Your task to perform on an android device: change notifications settings Image 0: 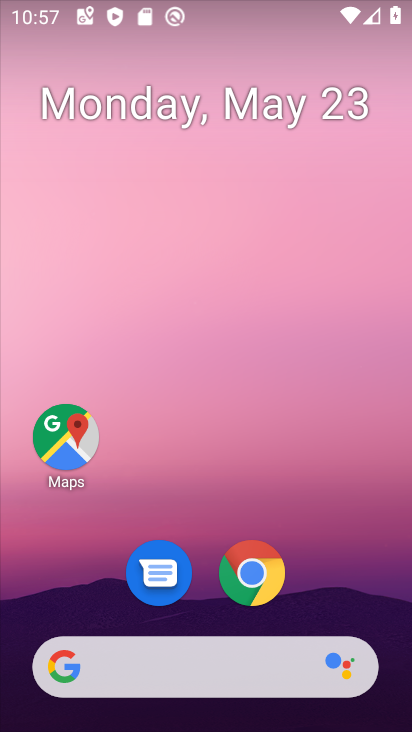
Step 0: drag from (306, 623) to (307, 337)
Your task to perform on an android device: change notifications settings Image 1: 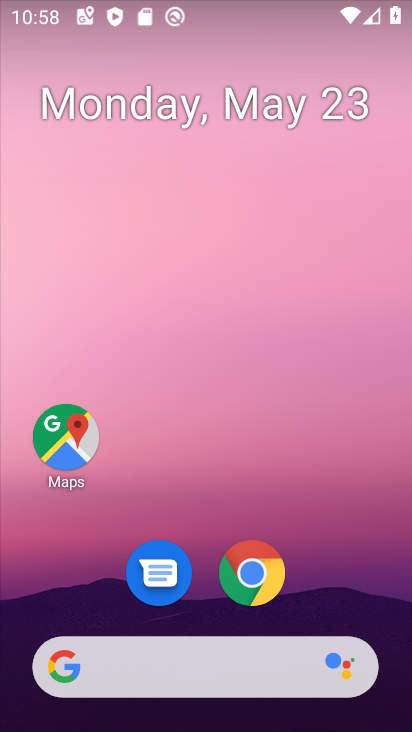
Step 1: drag from (284, 724) to (289, 634)
Your task to perform on an android device: change notifications settings Image 2: 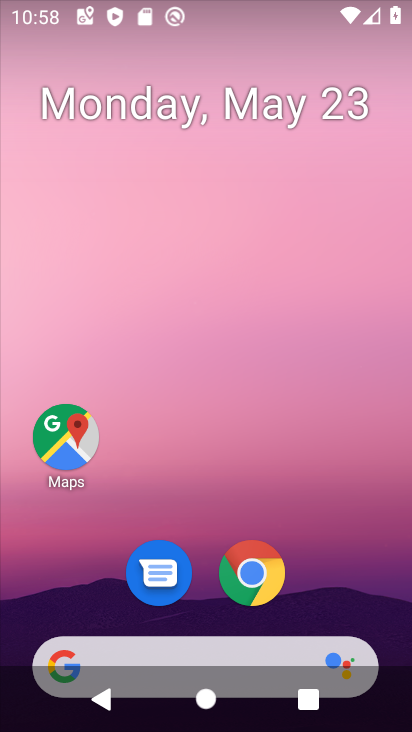
Step 2: drag from (289, 634) to (221, 8)
Your task to perform on an android device: change notifications settings Image 3: 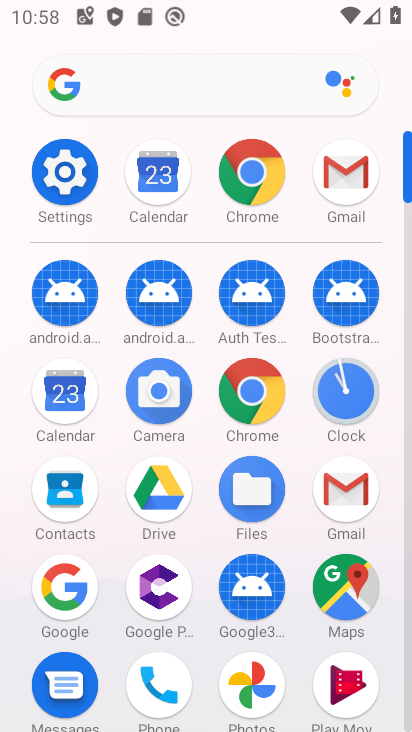
Step 3: click (58, 188)
Your task to perform on an android device: change notifications settings Image 4: 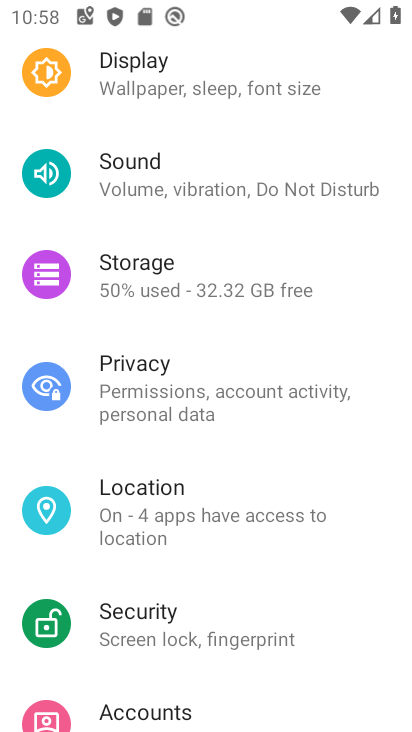
Step 4: drag from (210, 194) to (214, 352)
Your task to perform on an android device: change notifications settings Image 5: 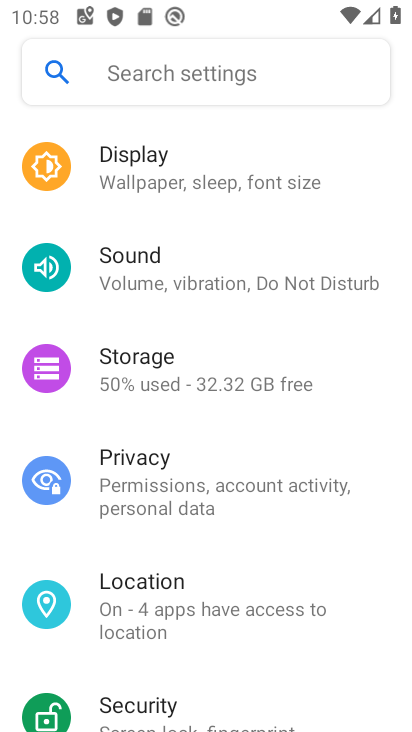
Step 5: drag from (199, 153) to (218, 319)
Your task to perform on an android device: change notifications settings Image 6: 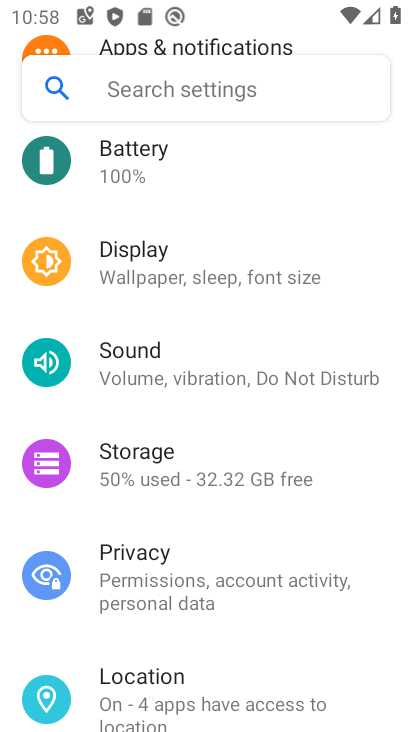
Step 6: drag from (203, 161) to (222, 383)
Your task to perform on an android device: change notifications settings Image 7: 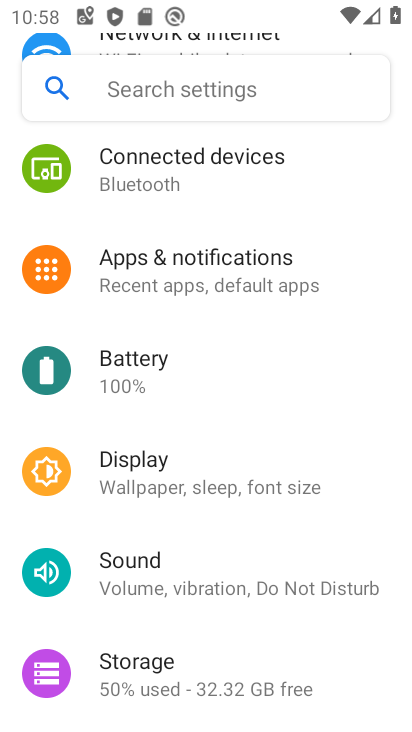
Step 7: click (226, 275)
Your task to perform on an android device: change notifications settings Image 8: 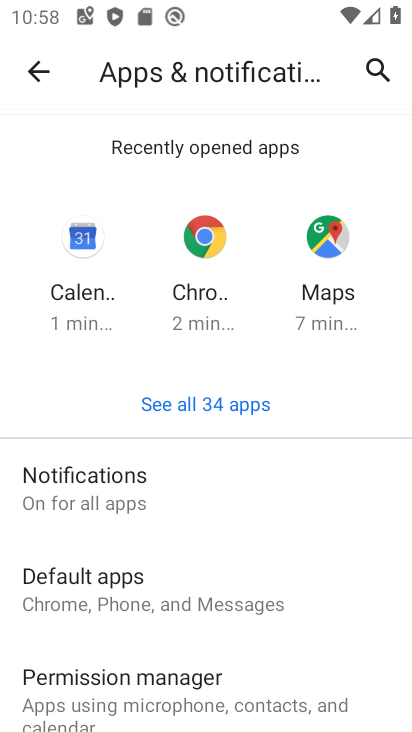
Step 8: click (207, 487)
Your task to perform on an android device: change notifications settings Image 9: 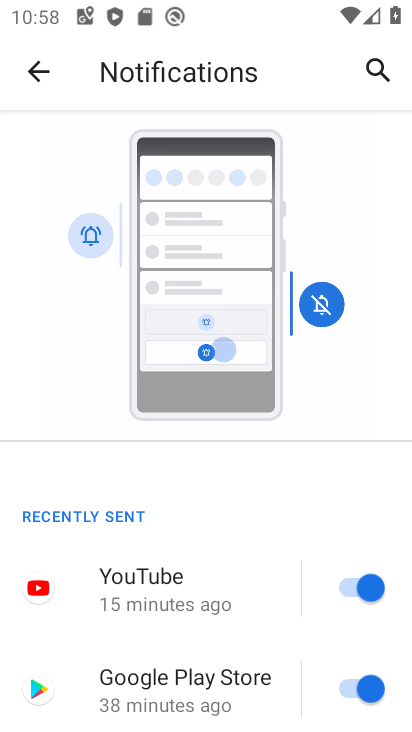
Step 9: drag from (231, 599) to (230, 471)
Your task to perform on an android device: change notifications settings Image 10: 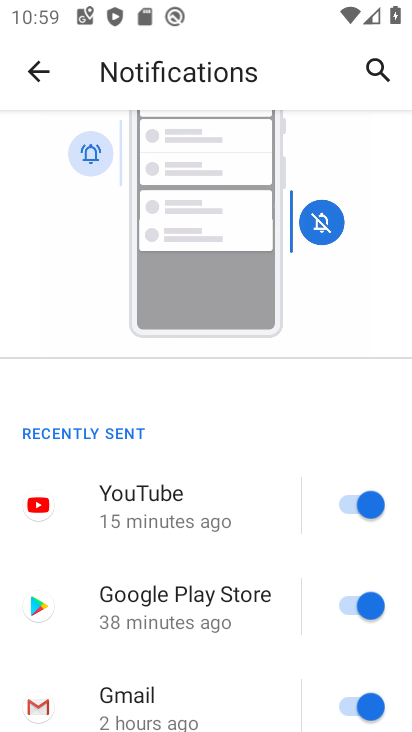
Step 10: click (372, 503)
Your task to perform on an android device: change notifications settings Image 11: 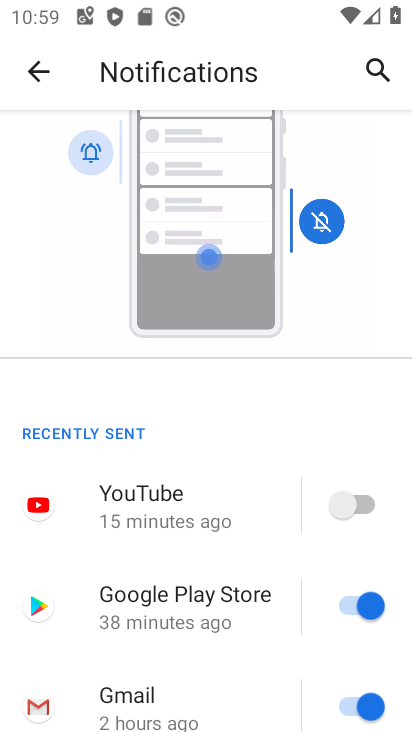
Step 11: task complete